Your task to perform on an android device: Search for Mexican restaurants on Maps Image 0: 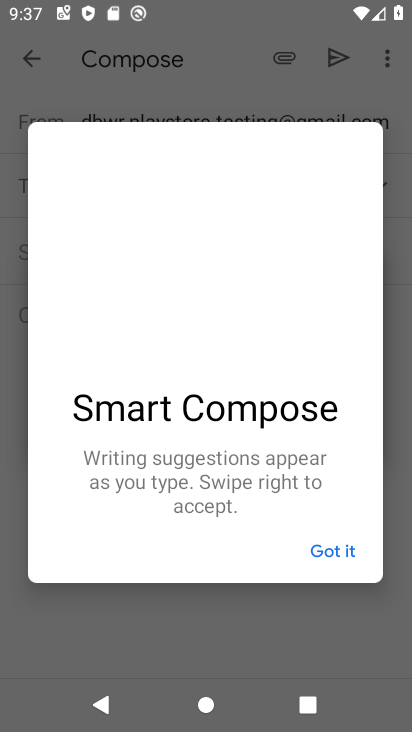
Step 0: press home button
Your task to perform on an android device: Search for Mexican restaurants on Maps Image 1: 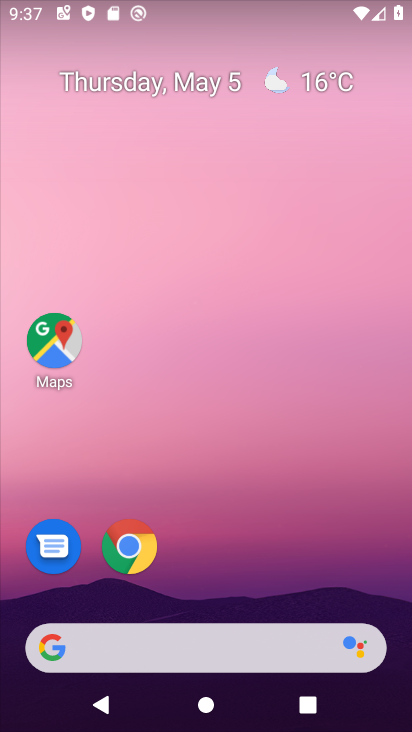
Step 1: drag from (234, 564) to (226, 117)
Your task to perform on an android device: Search for Mexican restaurants on Maps Image 2: 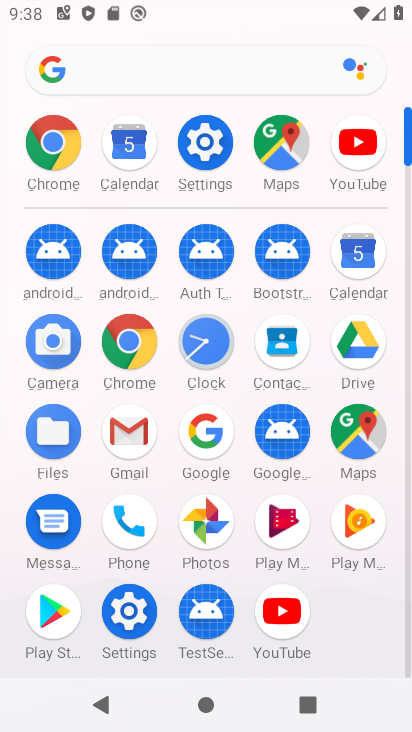
Step 2: click (285, 147)
Your task to perform on an android device: Search for Mexican restaurants on Maps Image 3: 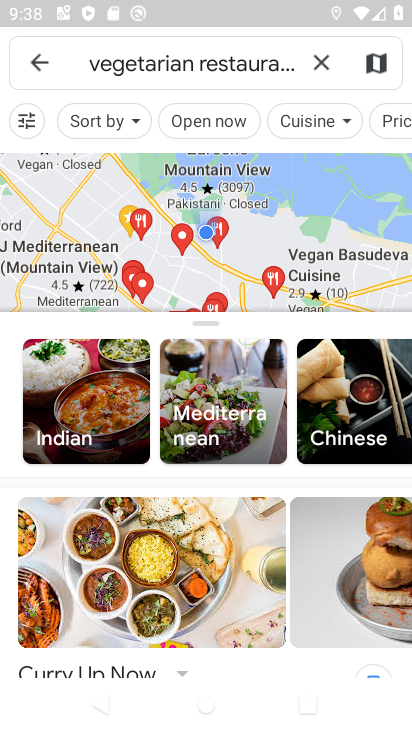
Step 3: click (323, 68)
Your task to perform on an android device: Search for Mexican restaurants on Maps Image 4: 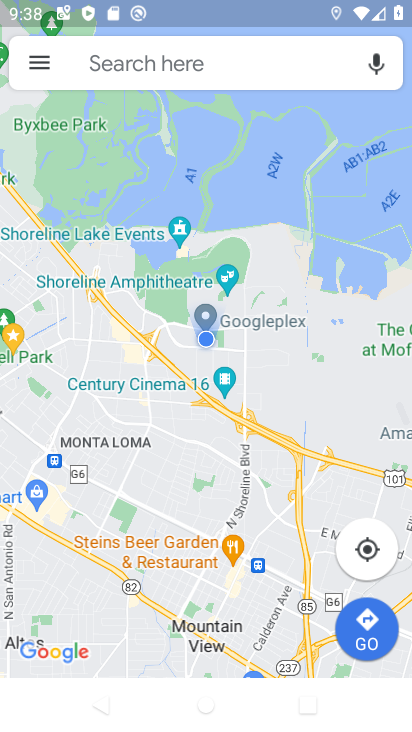
Step 4: click (228, 58)
Your task to perform on an android device: Search for Mexican restaurants on Maps Image 5: 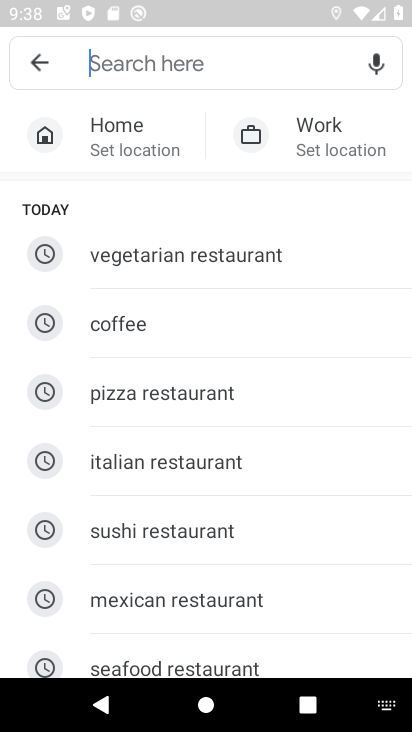
Step 5: type "mexixan restaurants"
Your task to perform on an android device: Search for Mexican restaurants on Maps Image 6: 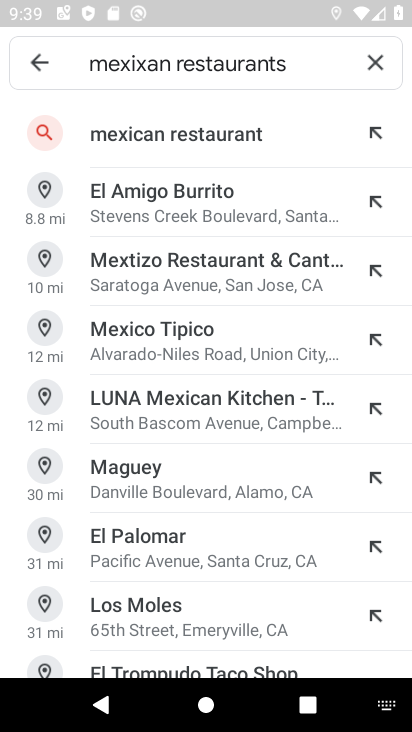
Step 6: click (137, 134)
Your task to perform on an android device: Search for Mexican restaurants on Maps Image 7: 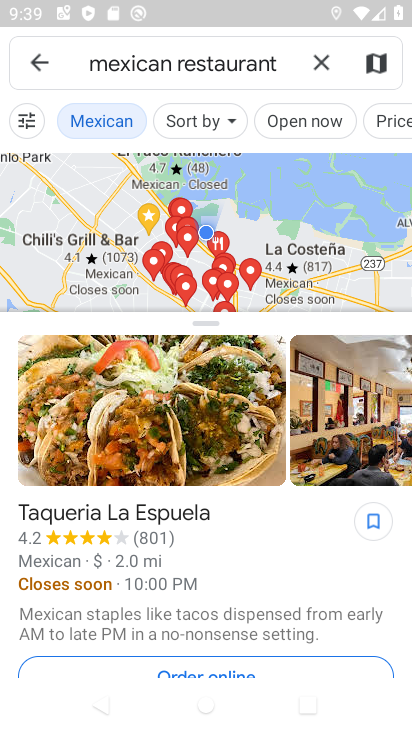
Step 7: task complete